Your task to perform on an android device: create a new album in the google photos Image 0: 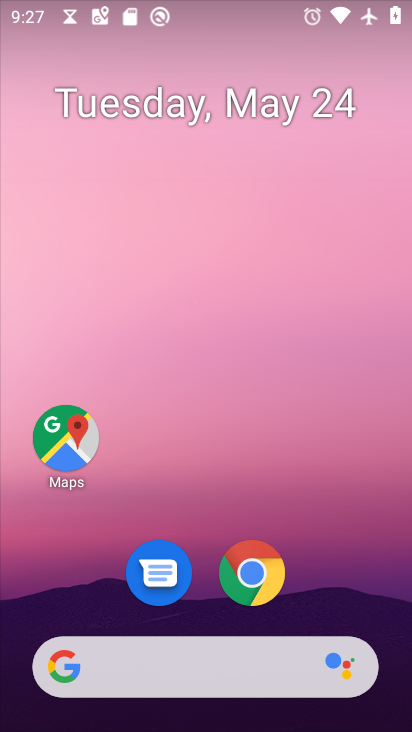
Step 0: drag from (350, 438) to (333, 5)
Your task to perform on an android device: create a new album in the google photos Image 1: 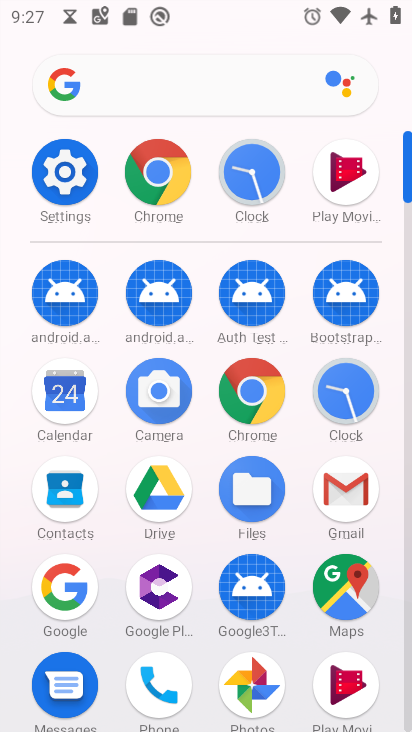
Step 1: drag from (398, 621) to (371, 175)
Your task to perform on an android device: create a new album in the google photos Image 2: 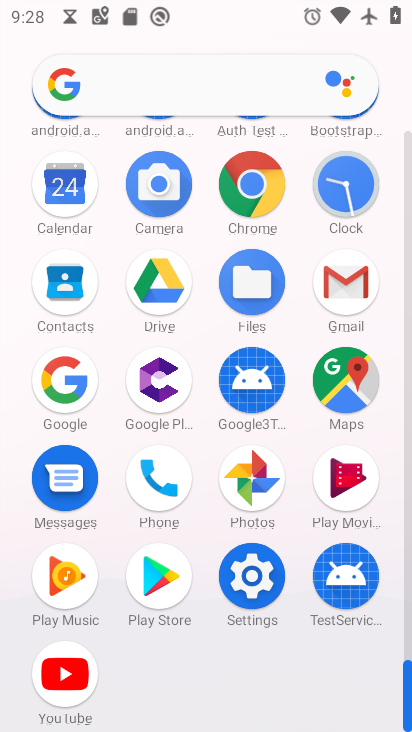
Step 2: click (234, 492)
Your task to perform on an android device: create a new album in the google photos Image 3: 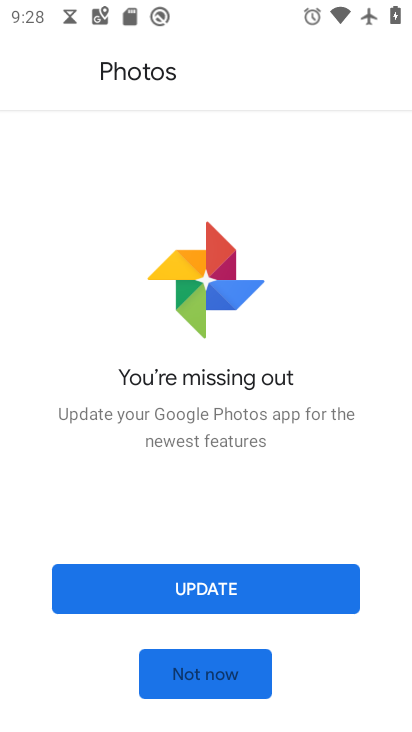
Step 3: click (243, 596)
Your task to perform on an android device: create a new album in the google photos Image 4: 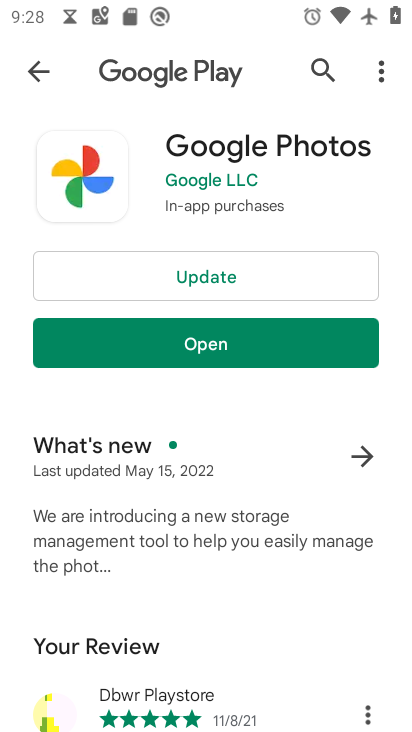
Step 4: click (221, 278)
Your task to perform on an android device: create a new album in the google photos Image 5: 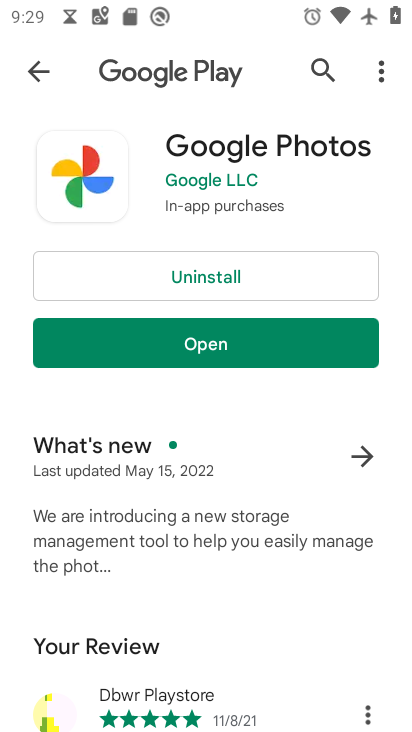
Step 5: click (220, 341)
Your task to perform on an android device: create a new album in the google photos Image 6: 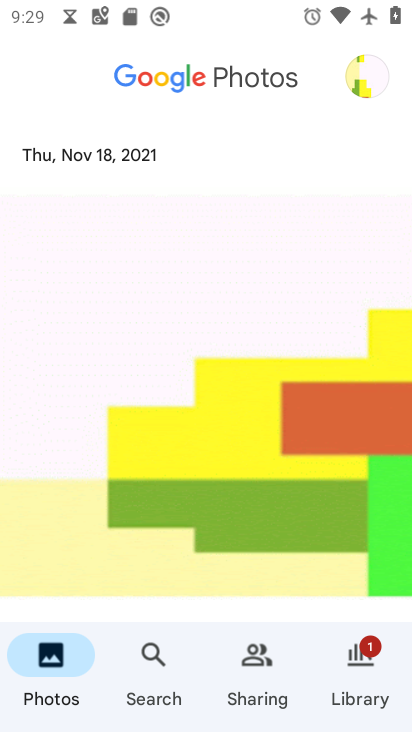
Step 6: task complete